Your task to perform on an android device: Open Youtube and go to "Your channel" Image 0: 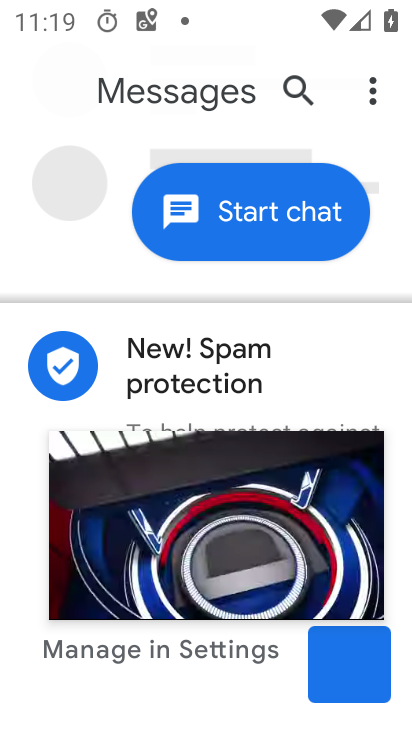
Step 0: press home button
Your task to perform on an android device: Open Youtube and go to "Your channel" Image 1: 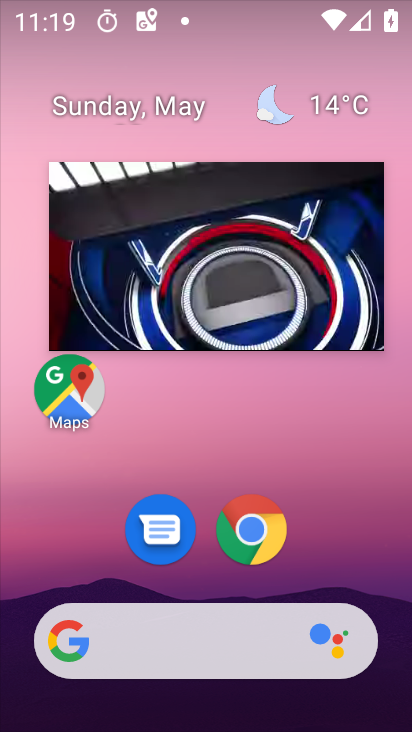
Step 1: drag from (168, 256) to (127, 717)
Your task to perform on an android device: Open Youtube and go to "Your channel" Image 2: 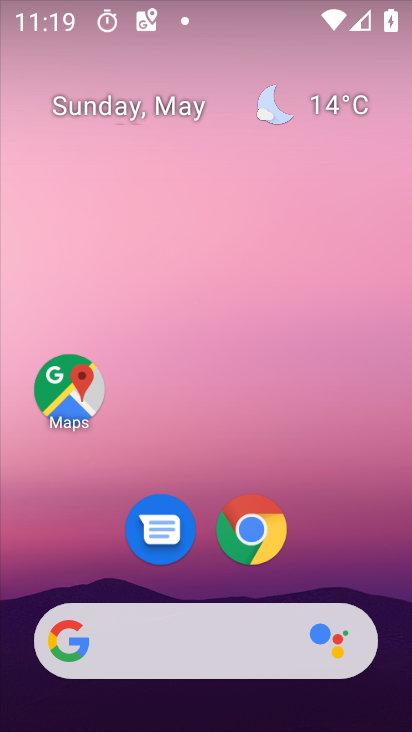
Step 2: drag from (197, 637) to (233, 79)
Your task to perform on an android device: Open Youtube and go to "Your channel" Image 3: 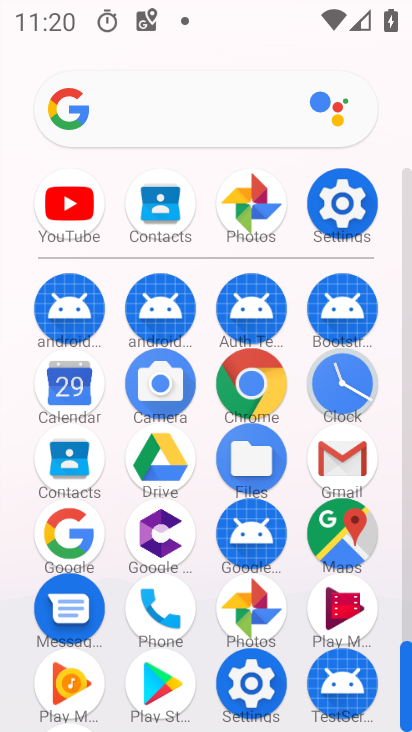
Step 3: drag from (162, 626) to (92, 310)
Your task to perform on an android device: Open Youtube and go to "Your channel" Image 4: 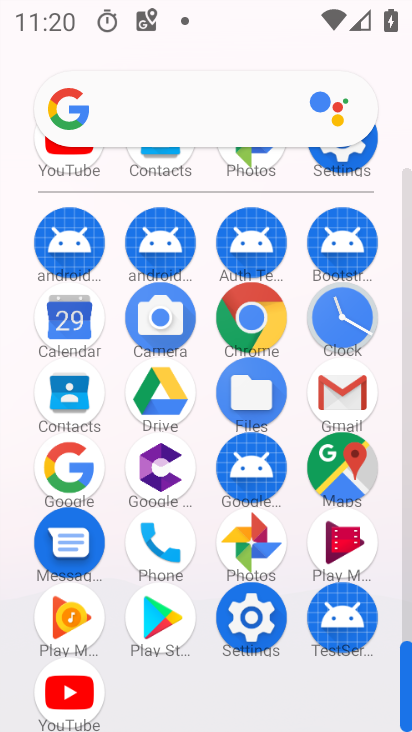
Step 4: click (82, 702)
Your task to perform on an android device: Open Youtube and go to "Your channel" Image 5: 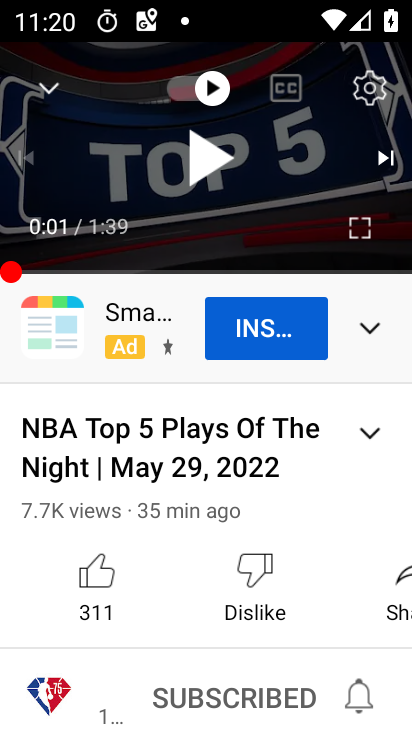
Step 5: drag from (69, 152) to (362, 704)
Your task to perform on an android device: Open Youtube and go to "Your channel" Image 6: 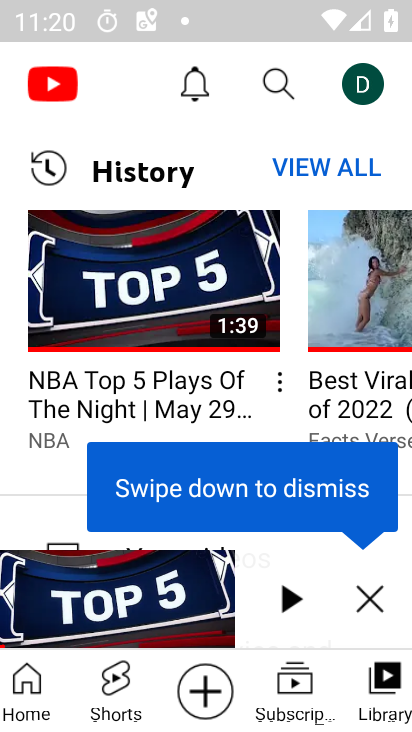
Step 6: click (361, 97)
Your task to perform on an android device: Open Youtube and go to "Your channel" Image 7: 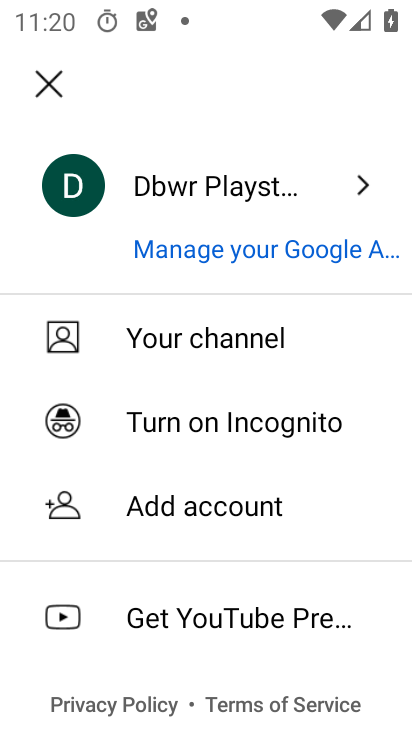
Step 7: click (155, 344)
Your task to perform on an android device: Open Youtube and go to "Your channel" Image 8: 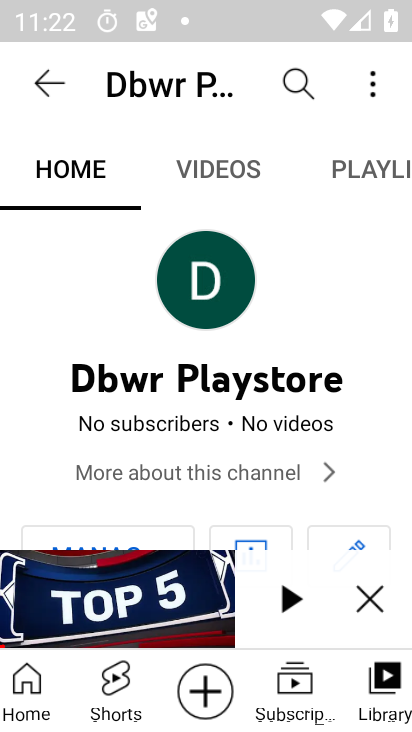
Step 8: task complete